Your task to perform on an android device: all mails in gmail Image 0: 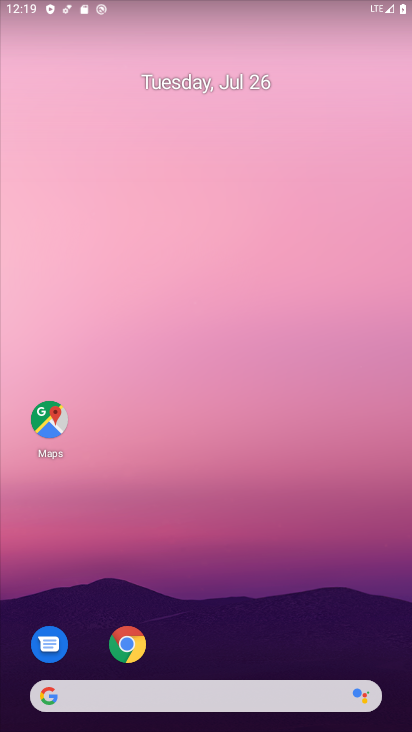
Step 0: drag from (105, 722) to (124, 17)
Your task to perform on an android device: all mails in gmail Image 1: 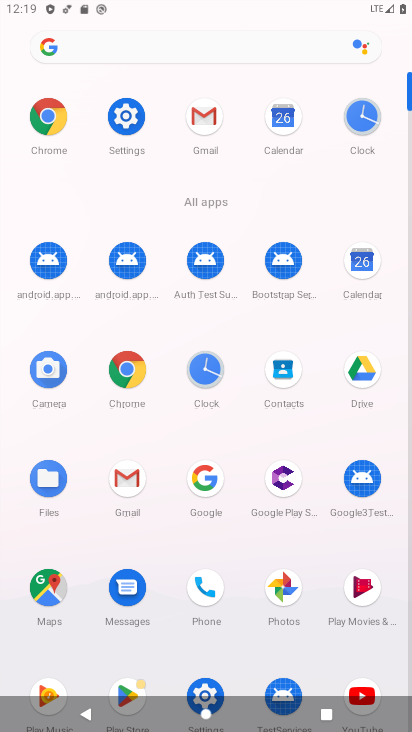
Step 1: click (197, 110)
Your task to perform on an android device: all mails in gmail Image 2: 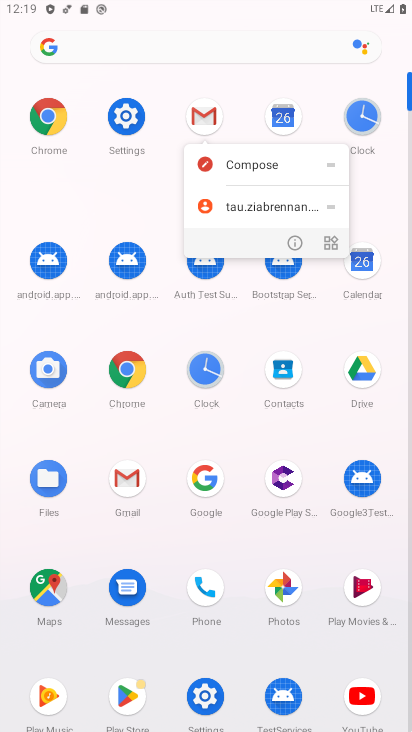
Step 2: click (203, 124)
Your task to perform on an android device: all mails in gmail Image 3: 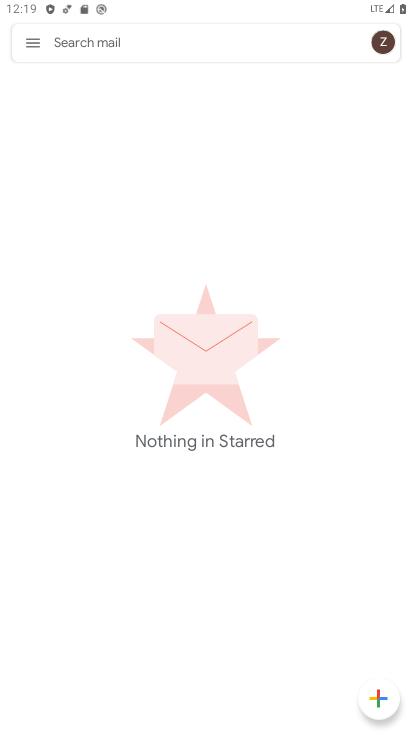
Step 3: click (28, 42)
Your task to perform on an android device: all mails in gmail Image 4: 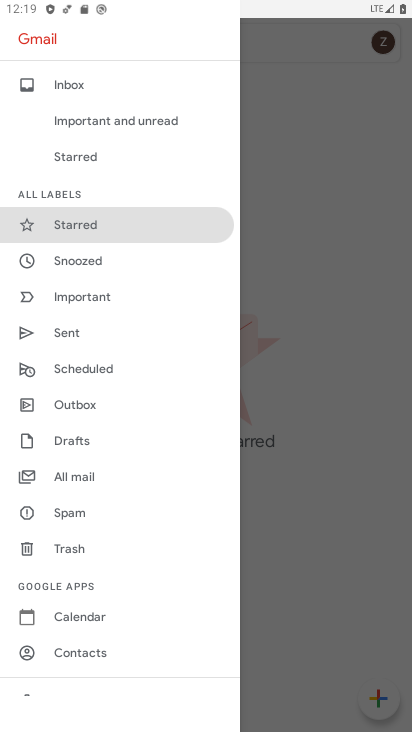
Step 4: click (102, 472)
Your task to perform on an android device: all mails in gmail Image 5: 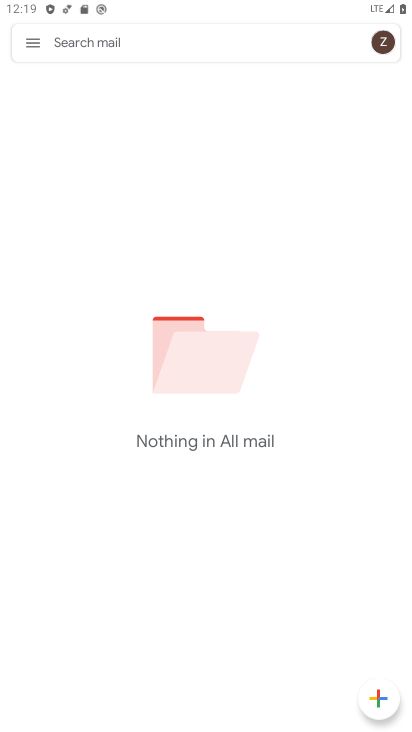
Step 5: task complete